Your task to perform on an android device: How do I get to the nearest IKEA? Image 0: 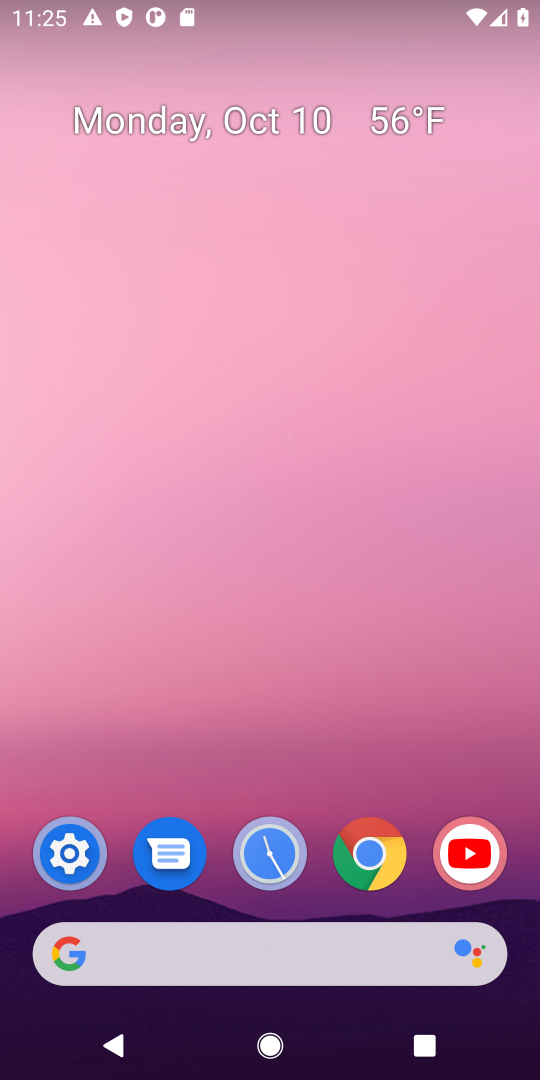
Step 0: drag from (358, 754) to (484, 69)
Your task to perform on an android device: How do I get to the nearest IKEA? Image 1: 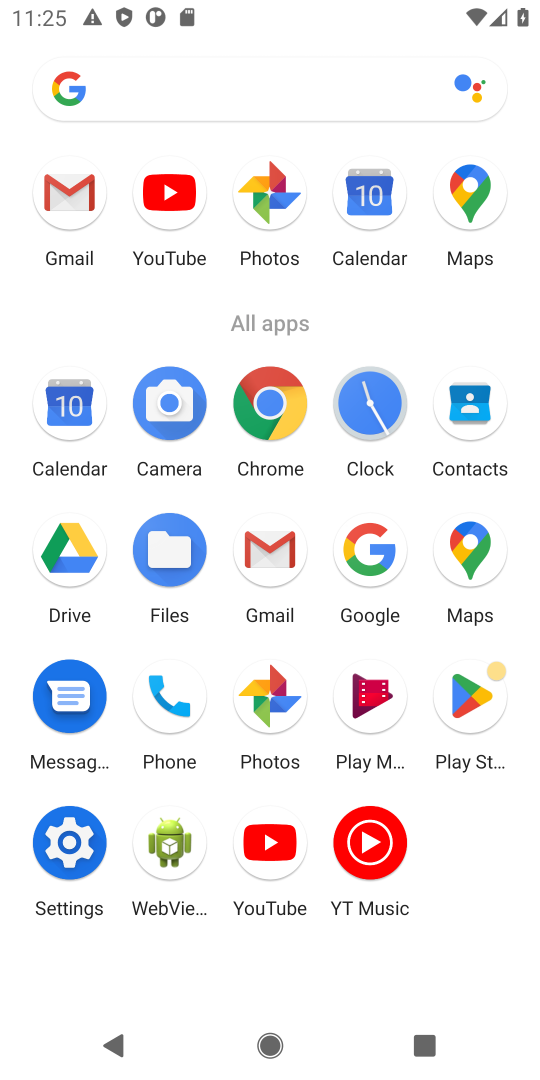
Step 1: click (276, 406)
Your task to perform on an android device: How do I get to the nearest IKEA? Image 2: 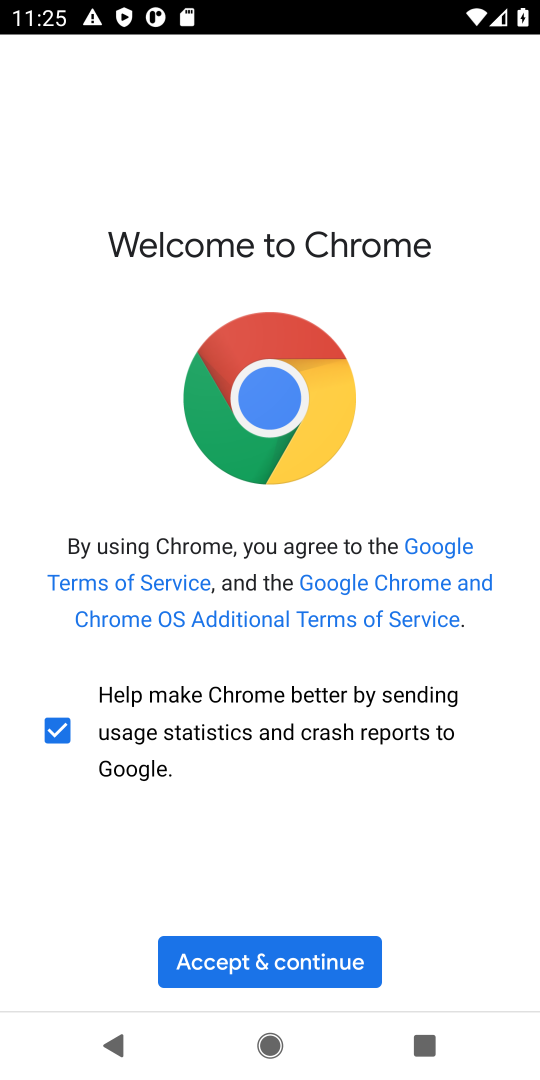
Step 2: click (305, 950)
Your task to perform on an android device: How do I get to the nearest IKEA? Image 3: 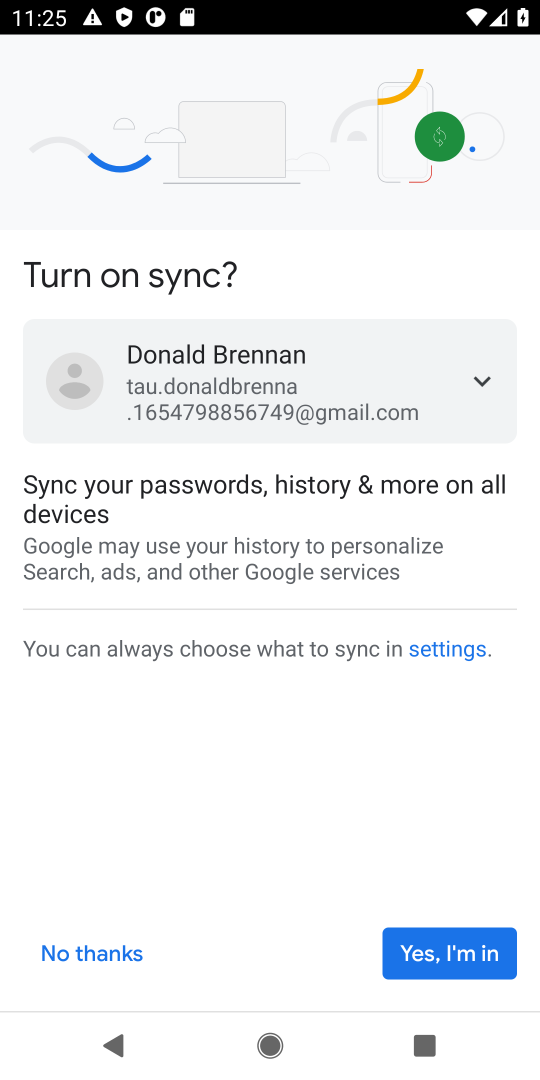
Step 3: click (446, 940)
Your task to perform on an android device: How do I get to the nearest IKEA? Image 4: 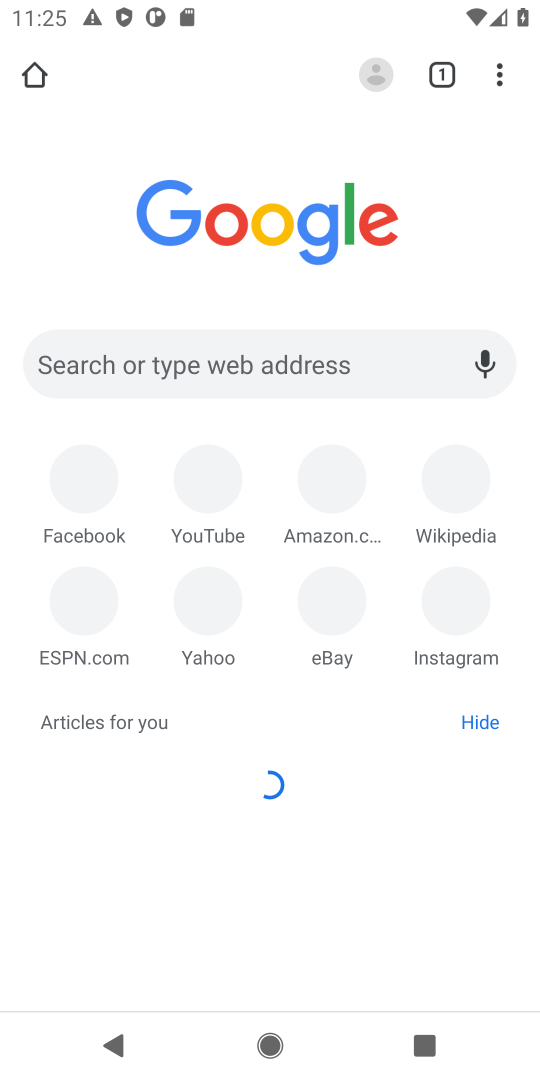
Step 4: click (219, 358)
Your task to perform on an android device: How do I get to the nearest IKEA? Image 5: 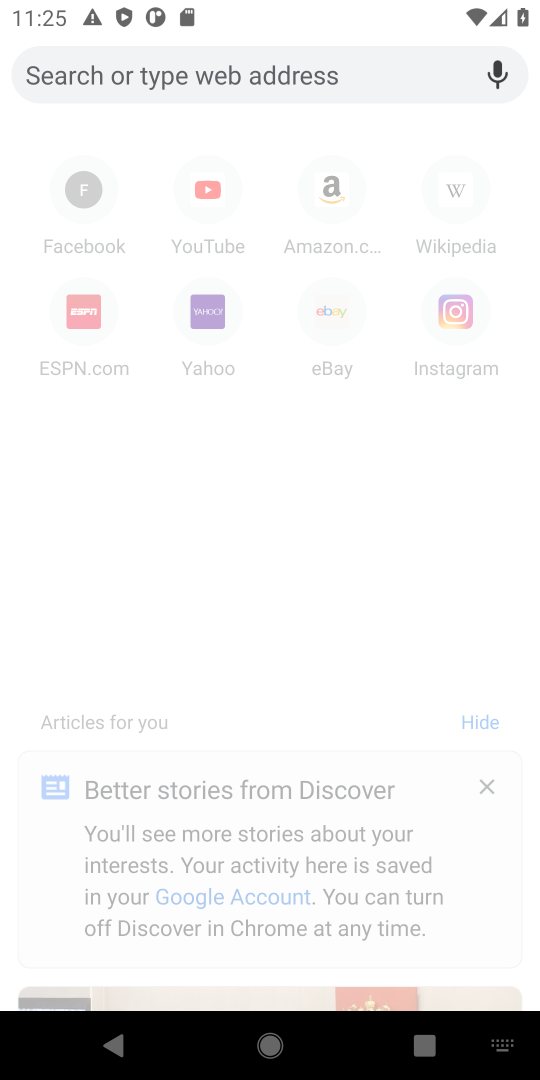
Step 5: type "How do I get to the nearest IKEA?"
Your task to perform on an android device: How do I get to the nearest IKEA? Image 6: 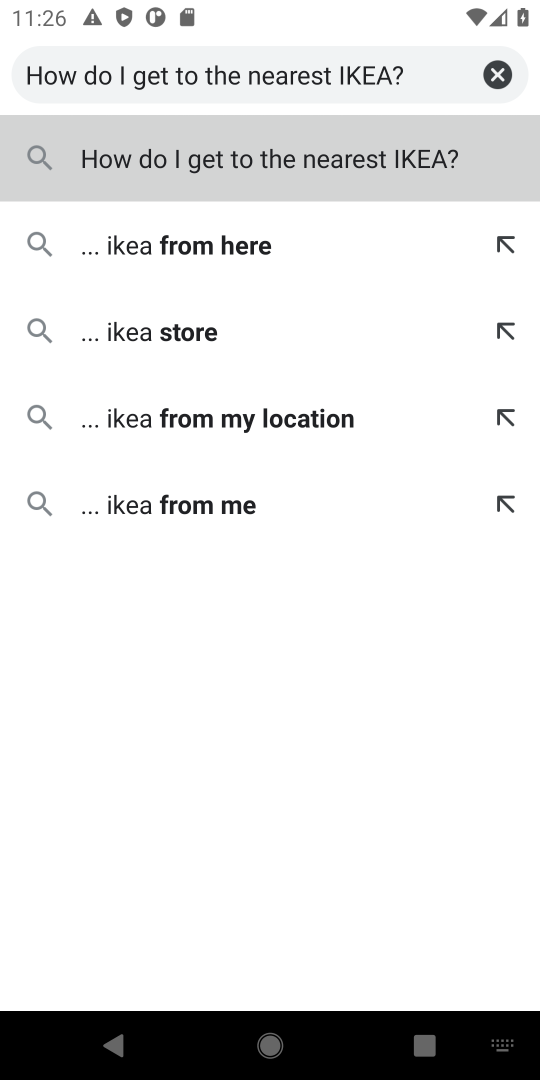
Step 6: click (281, 147)
Your task to perform on an android device: How do I get to the nearest IKEA? Image 7: 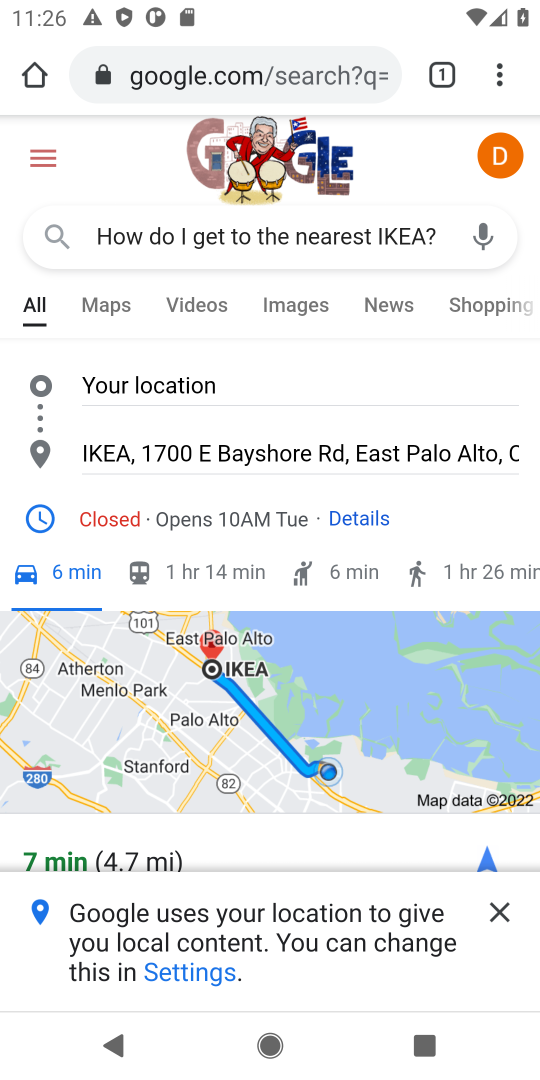
Step 7: task complete